Your task to perform on an android device: Set the phone to "Do not disturb". Image 0: 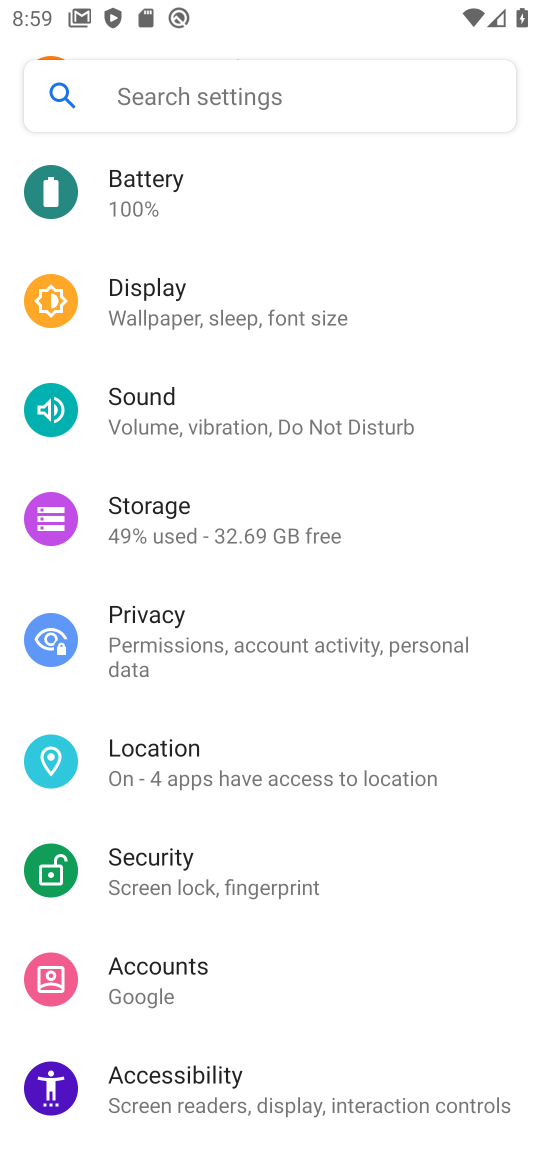
Step 0: press home button
Your task to perform on an android device: Set the phone to "Do not disturb". Image 1: 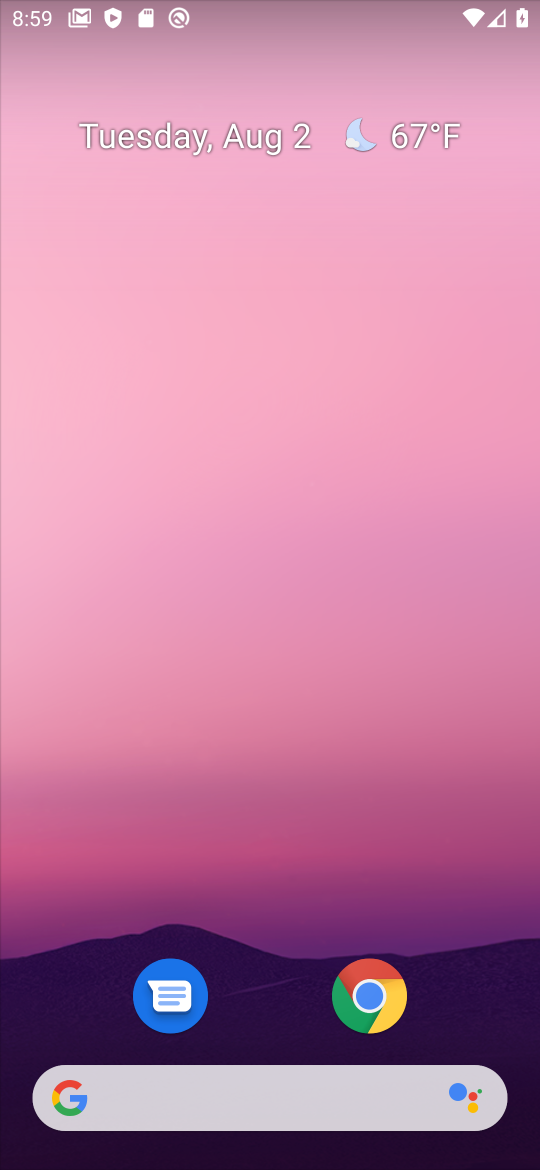
Step 1: drag from (276, 1024) to (339, 18)
Your task to perform on an android device: Set the phone to "Do not disturb". Image 2: 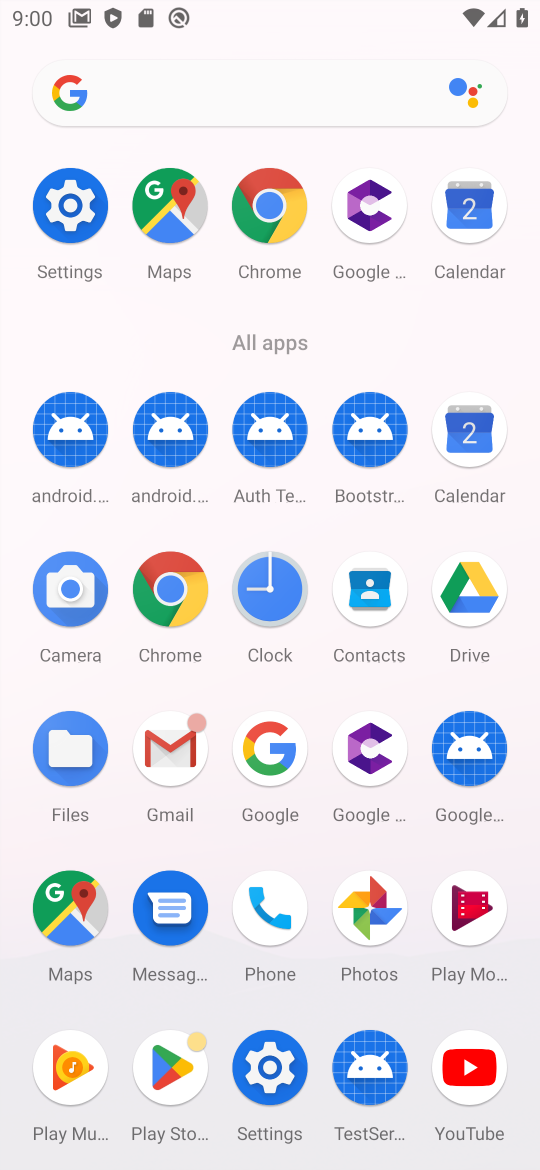
Step 2: drag from (188, 7) to (129, 788)
Your task to perform on an android device: Set the phone to "Do not disturb". Image 3: 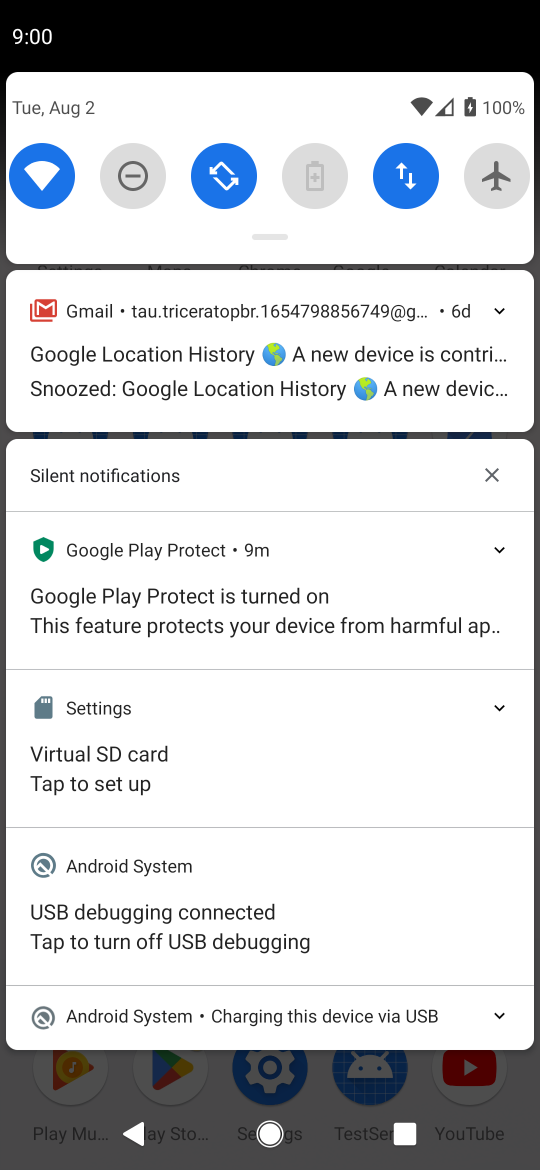
Step 3: click (130, 167)
Your task to perform on an android device: Set the phone to "Do not disturb". Image 4: 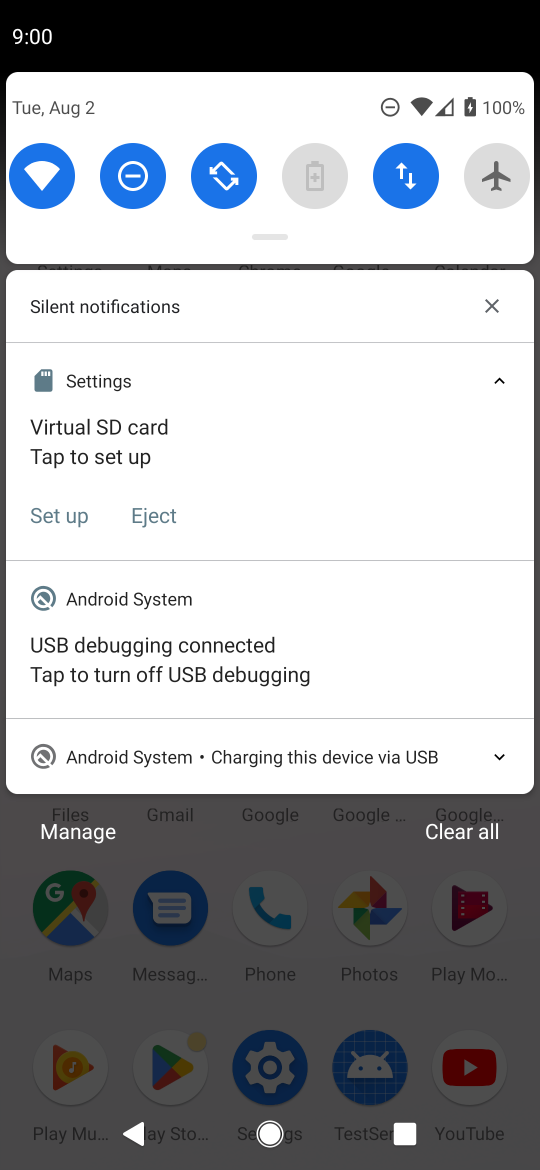
Step 4: task complete